Your task to perform on an android device: open device folders in google photos Image 0: 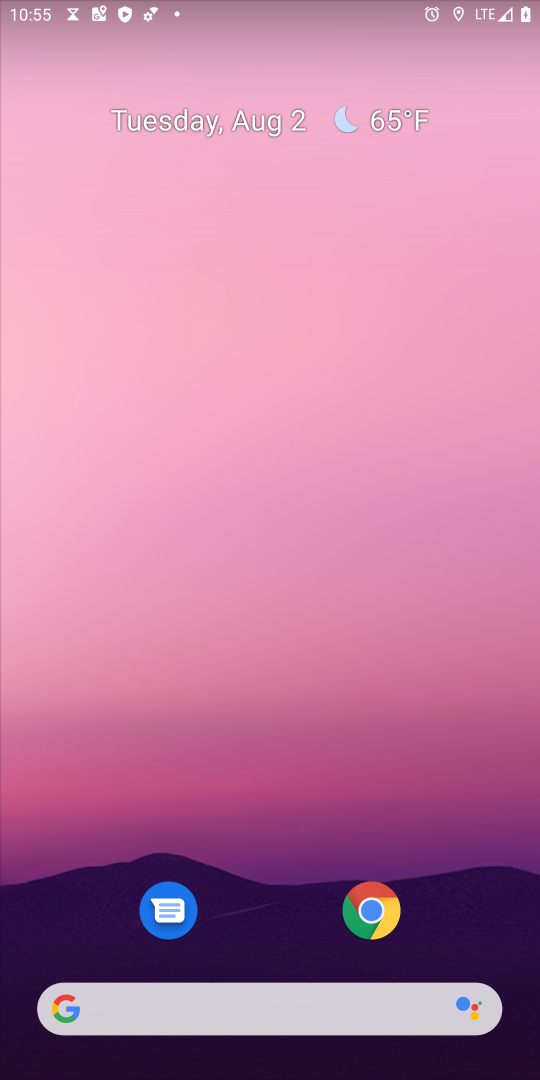
Step 0: drag from (276, 926) to (296, 326)
Your task to perform on an android device: open device folders in google photos Image 1: 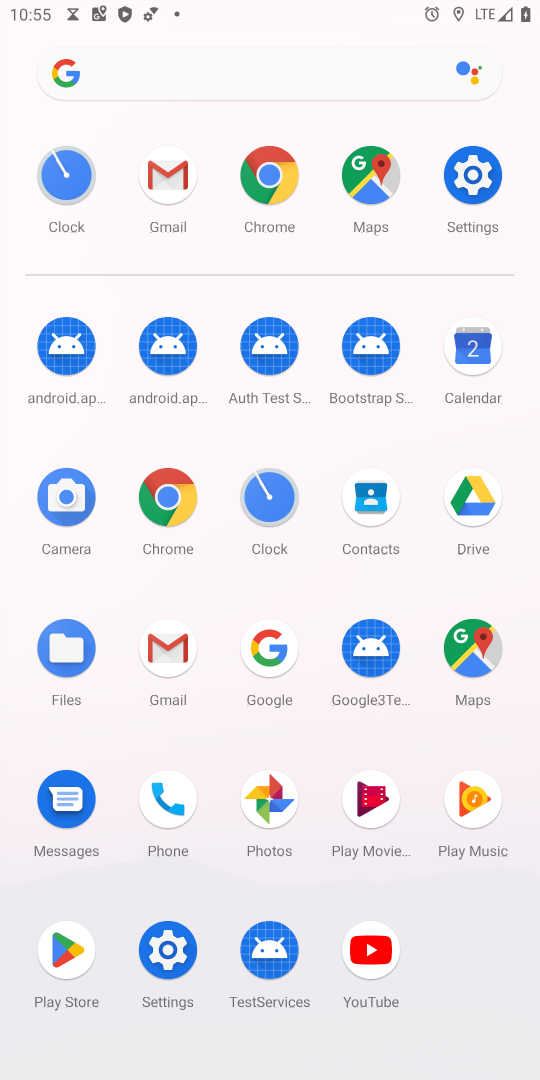
Step 1: click (259, 778)
Your task to perform on an android device: open device folders in google photos Image 2: 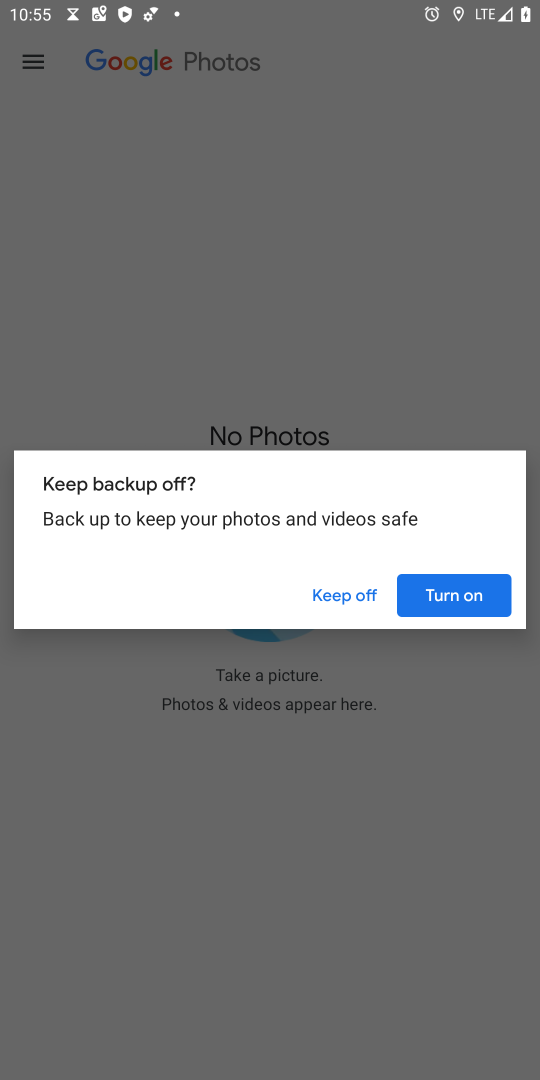
Step 2: click (348, 594)
Your task to perform on an android device: open device folders in google photos Image 3: 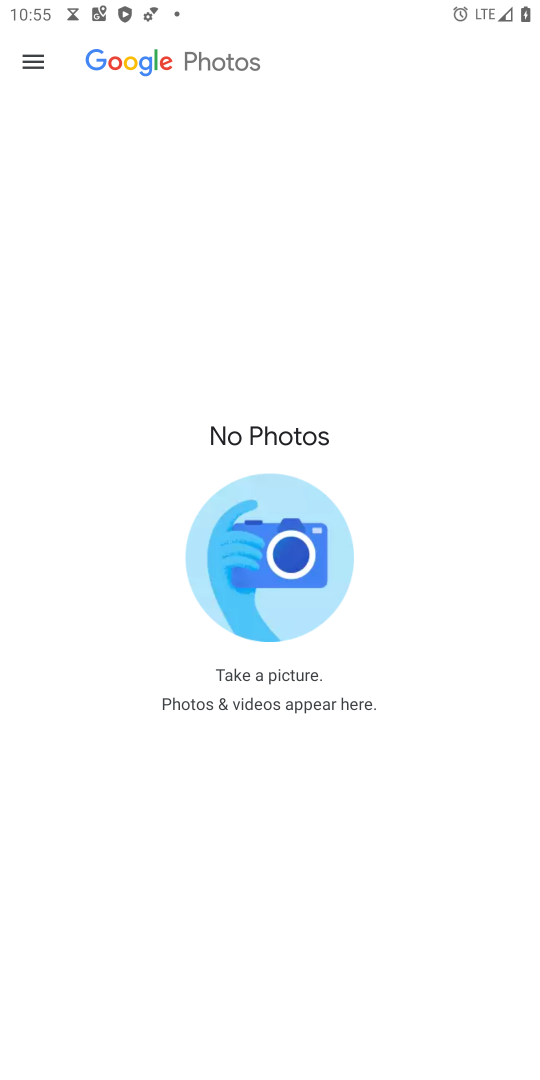
Step 3: click (445, 1010)
Your task to perform on an android device: open device folders in google photos Image 4: 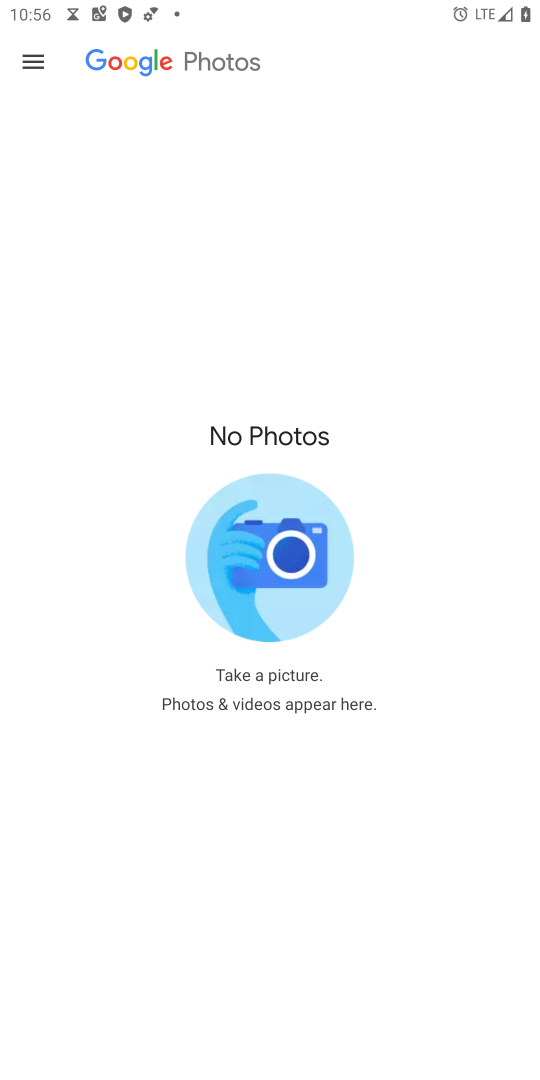
Step 4: task complete